Your task to perform on an android device: Clear the cart on amazon. Add razer blackwidow to the cart on amazon, then select checkout. Image 0: 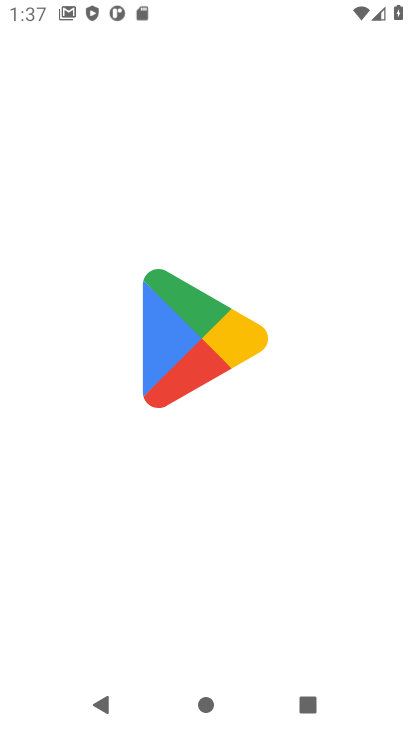
Step 0: press home button
Your task to perform on an android device: Clear the cart on amazon. Add razer blackwidow to the cart on amazon, then select checkout. Image 1: 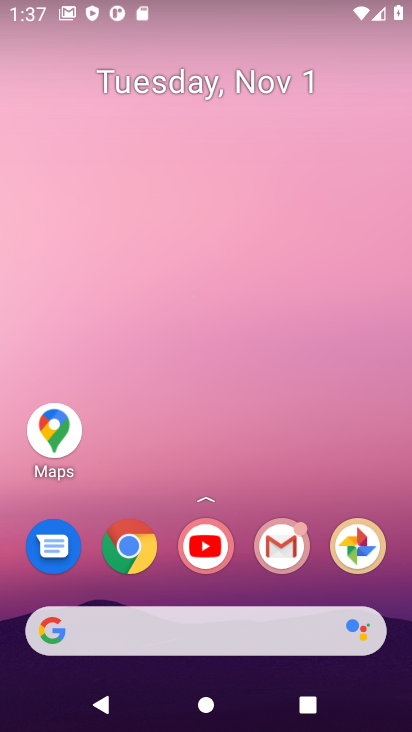
Step 1: click (127, 553)
Your task to perform on an android device: Clear the cart on amazon. Add razer blackwidow to the cart on amazon, then select checkout. Image 2: 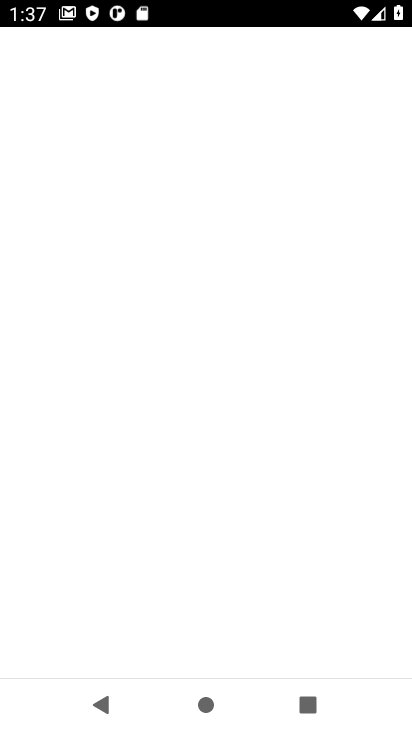
Step 2: press home button
Your task to perform on an android device: Clear the cart on amazon. Add razer blackwidow to the cart on amazon, then select checkout. Image 3: 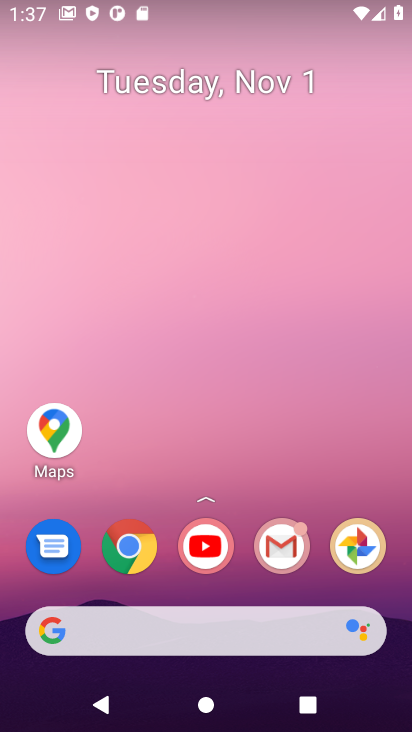
Step 3: click (53, 631)
Your task to perform on an android device: Clear the cart on amazon. Add razer blackwidow to the cart on amazon, then select checkout. Image 4: 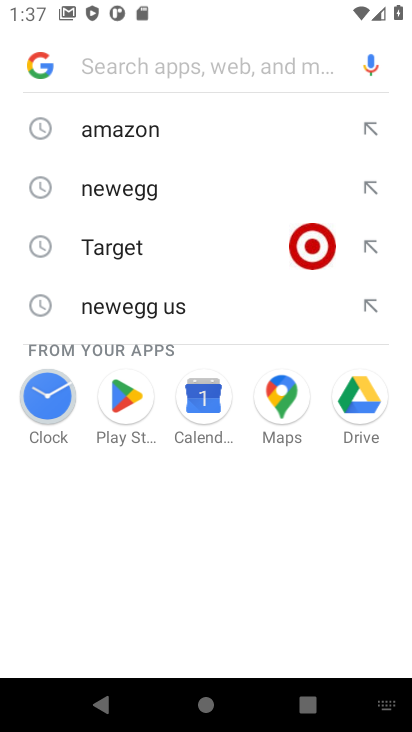
Step 4: click (242, 55)
Your task to perform on an android device: Clear the cart on amazon. Add razer blackwidow to the cart on amazon, then select checkout. Image 5: 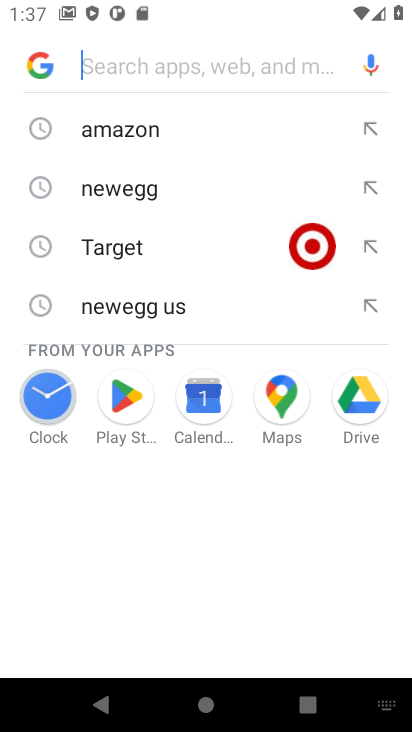
Step 5: click (109, 126)
Your task to perform on an android device: Clear the cart on amazon. Add razer blackwidow to the cart on amazon, then select checkout. Image 6: 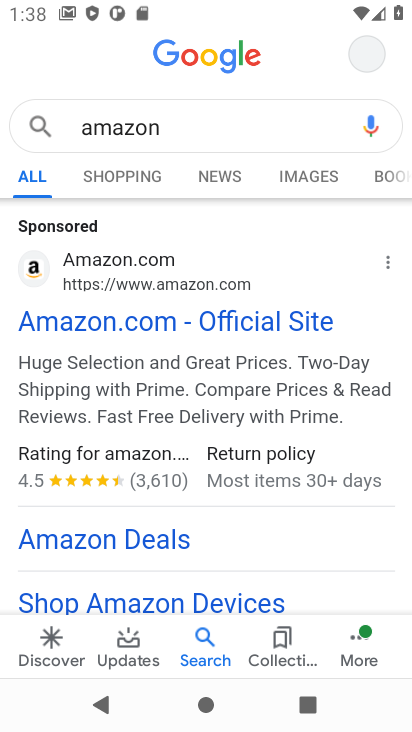
Step 6: click (106, 325)
Your task to perform on an android device: Clear the cart on amazon. Add razer blackwidow to the cart on amazon, then select checkout. Image 7: 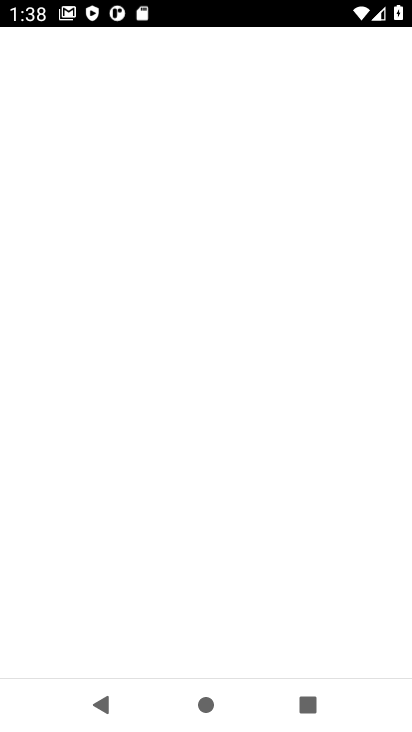
Step 7: task complete